Your task to perform on an android device: open app "Messenger Lite" (install if not already installed), go to login, and select forgot password Image 0: 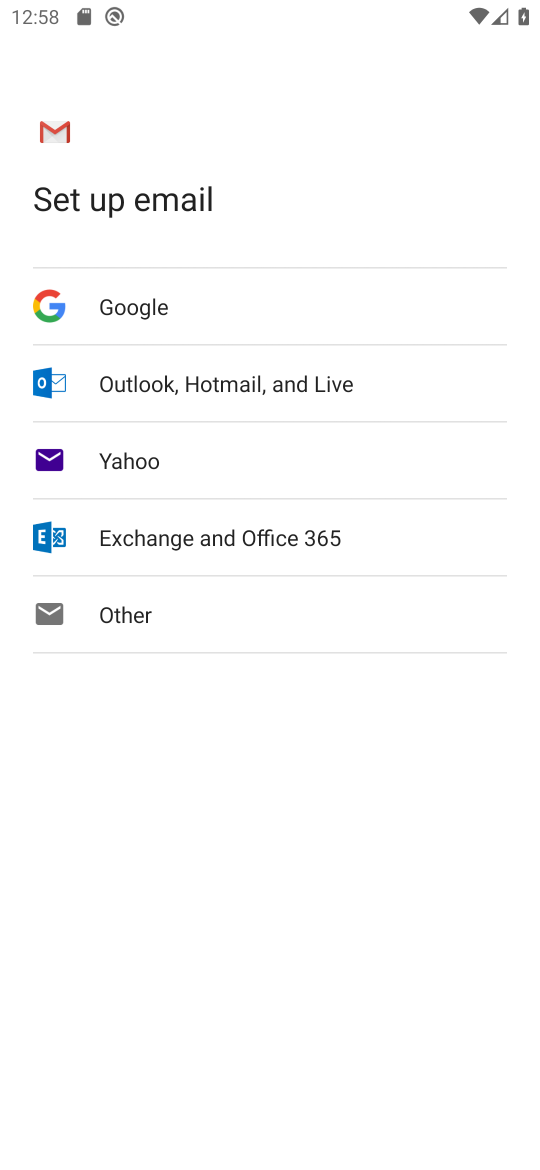
Step 0: press home button
Your task to perform on an android device: open app "Messenger Lite" (install if not already installed), go to login, and select forgot password Image 1: 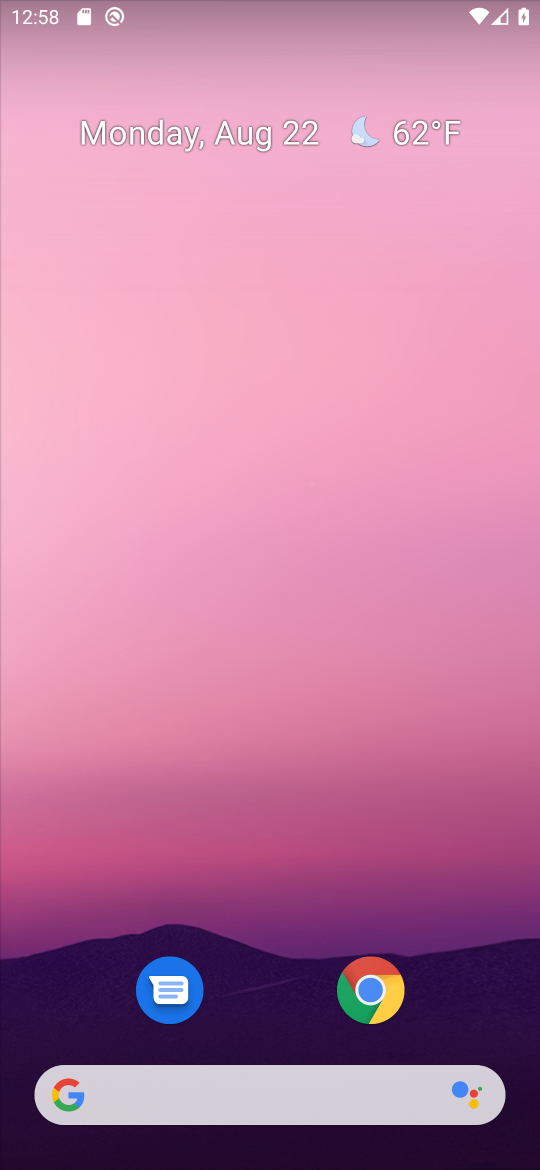
Step 1: drag from (233, 933) to (233, 299)
Your task to perform on an android device: open app "Messenger Lite" (install if not already installed), go to login, and select forgot password Image 2: 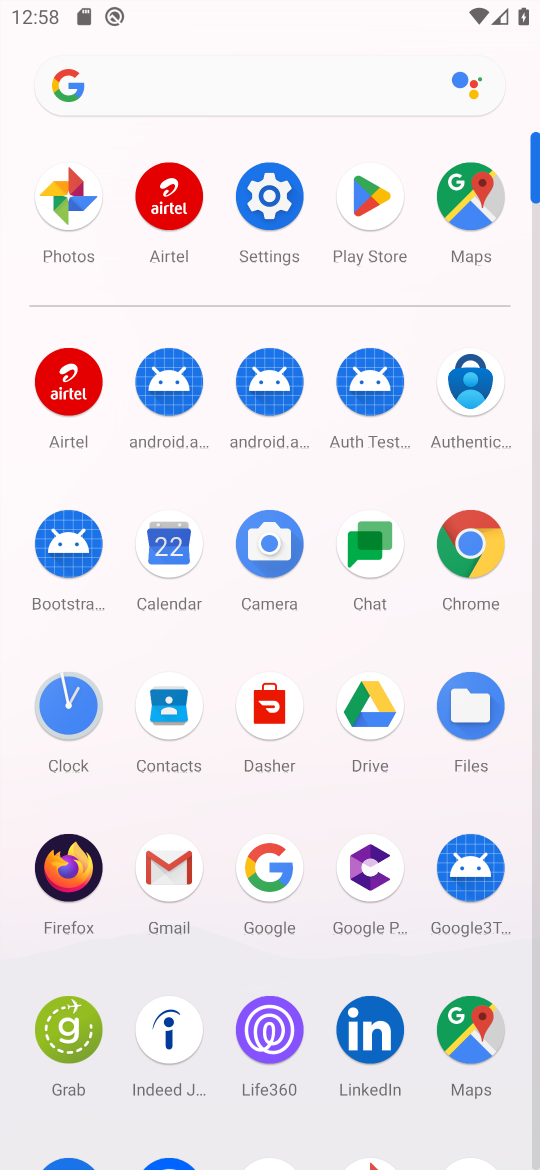
Step 2: click (350, 174)
Your task to perform on an android device: open app "Messenger Lite" (install if not already installed), go to login, and select forgot password Image 3: 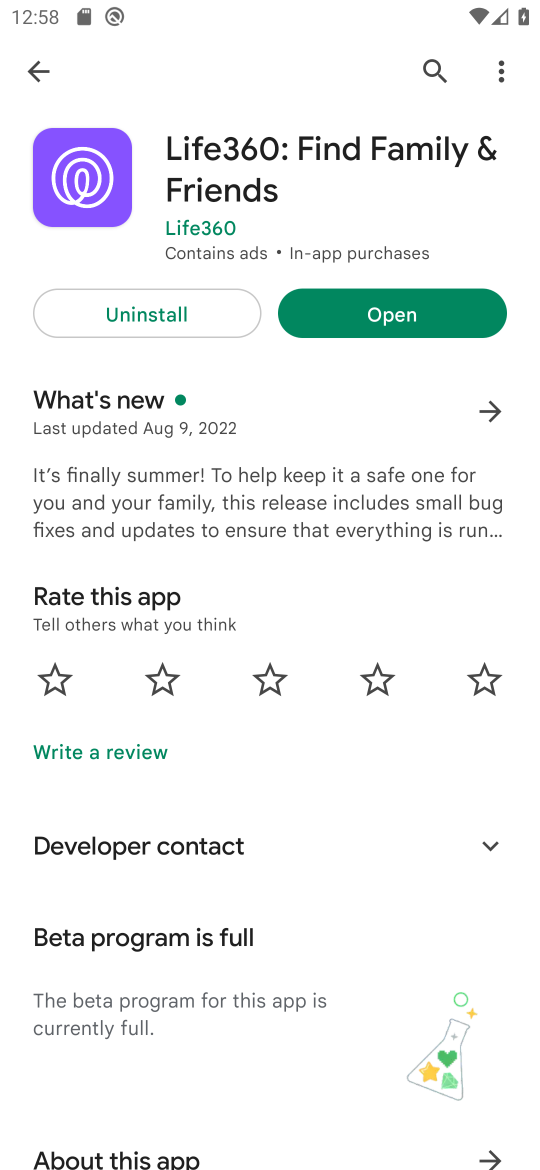
Step 3: click (433, 77)
Your task to perform on an android device: open app "Messenger Lite" (install if not already installed), go to login, and select forgot password Image 4: 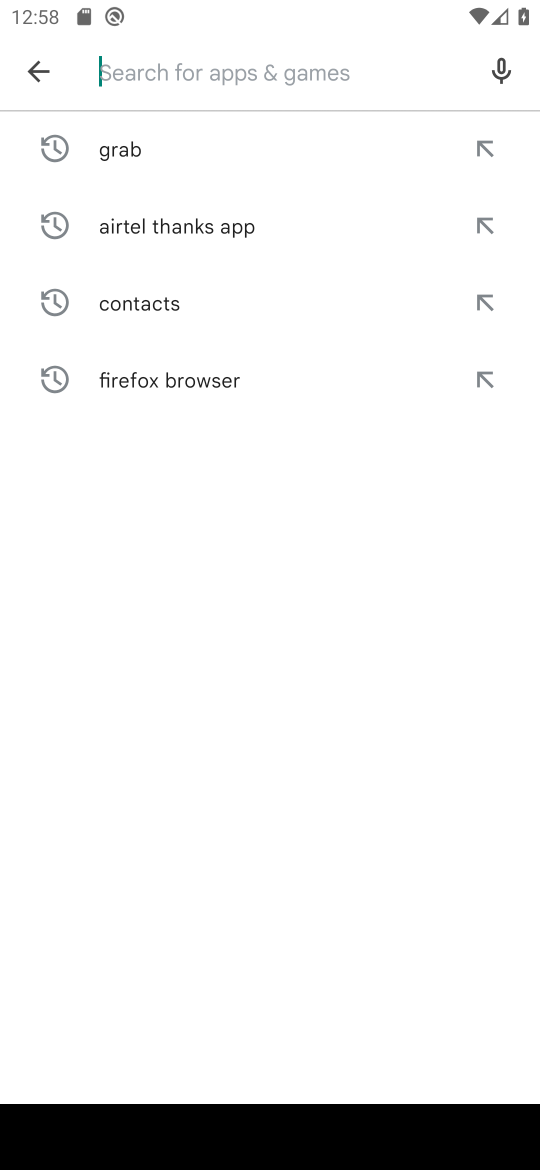
Step 4: type "Messenger Lite"
Your task to perform on an android device: open app "Messenger Lite" (install if not already installed), go to login, and select forgot password Image 5: 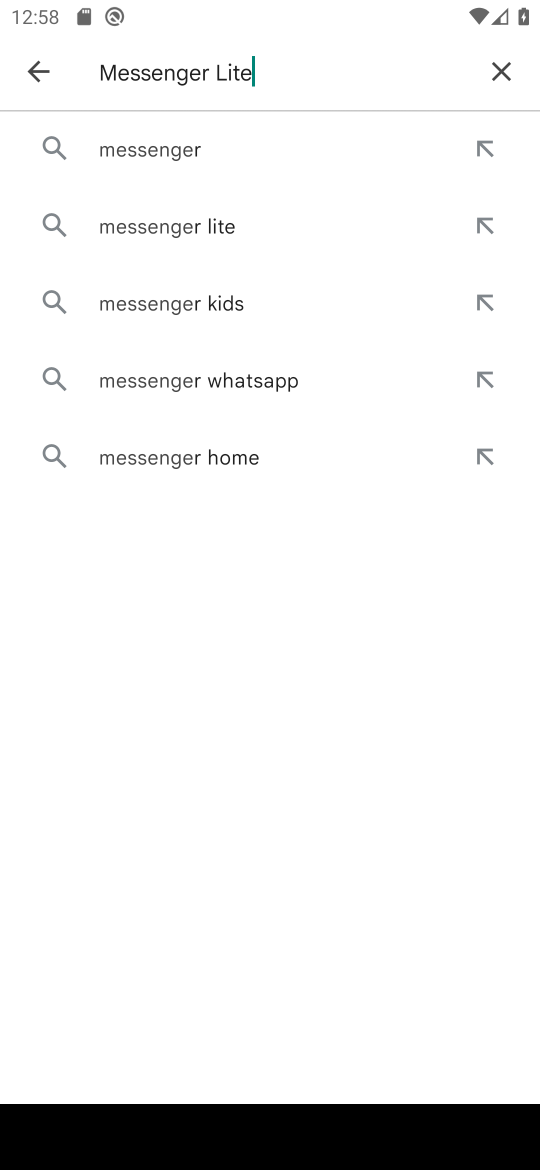
Step 5: type ""
Your task to perform on an android device: open app "Messenger Lite" (install if not already installed), go to login, and select forgot password Image 6: 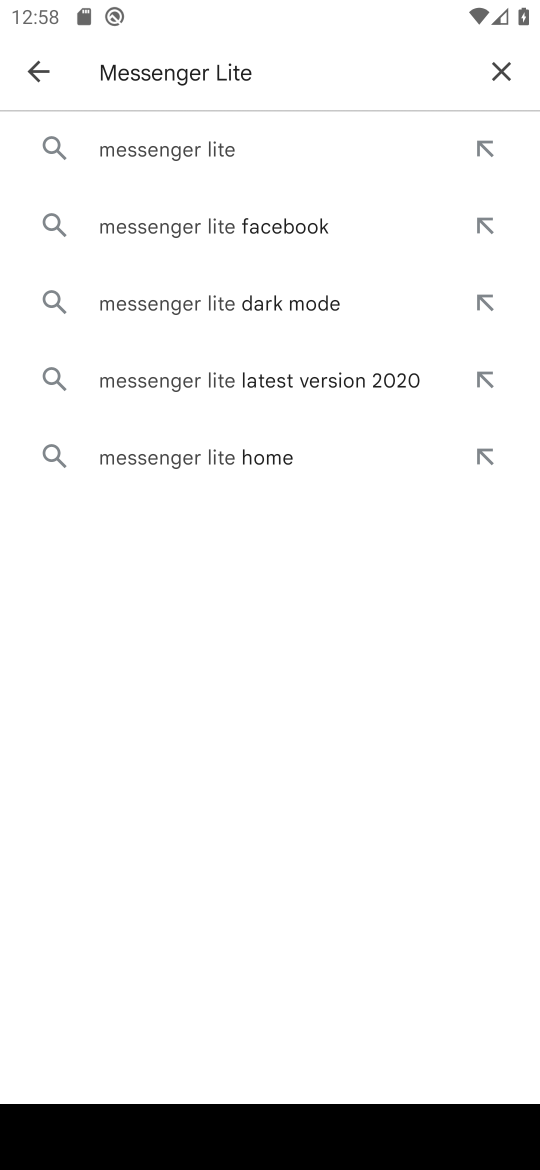
Step 6: click (226, 141)
Your task to perform on an android device: open app "Messenger Lite" (install if not already installed), go to login, and select forgot password Image 7: 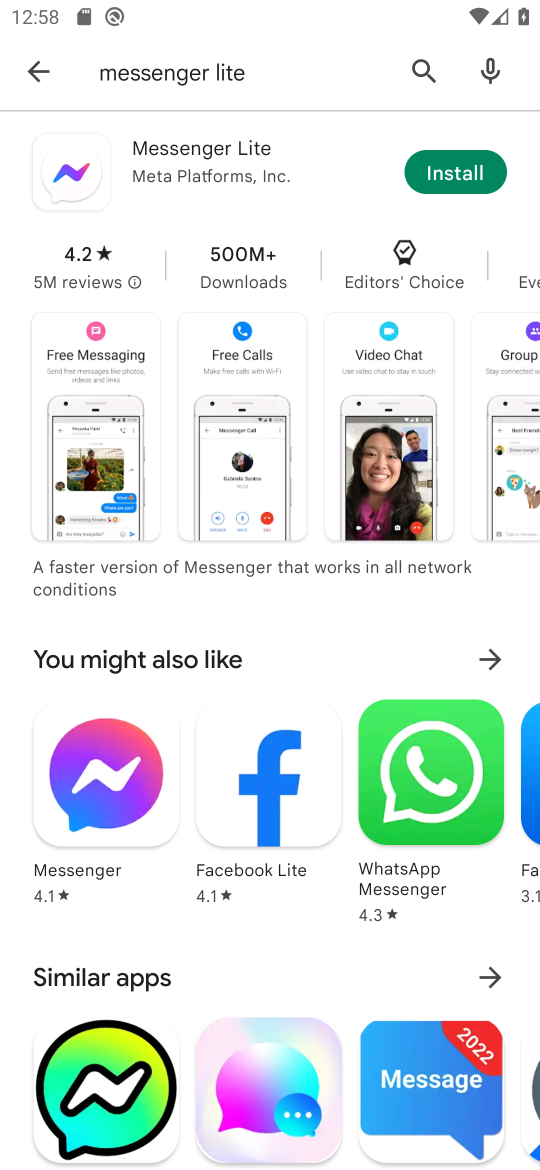
Step 7: click (445, 183)
Your task to perform on an android device: open app "Messenger Lite" (install if not already installed), go to login, and select forgot password Image 8: 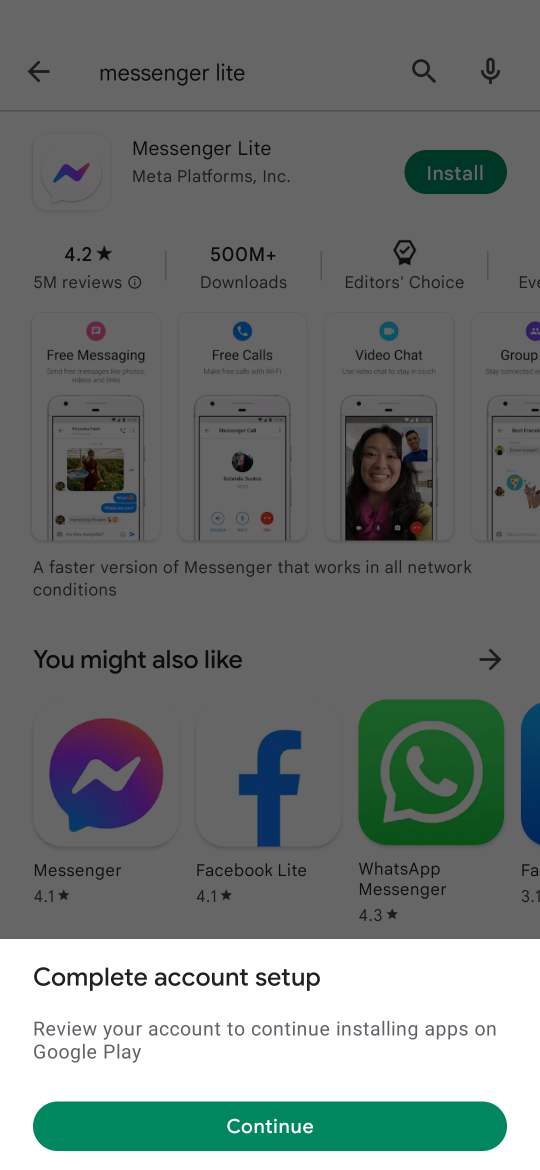
Step 8: click (334, 1129)
Your task to perform on an android device: open app "Messenger Lite" (install if not already installed), go to login, and select forgot password Image 9: 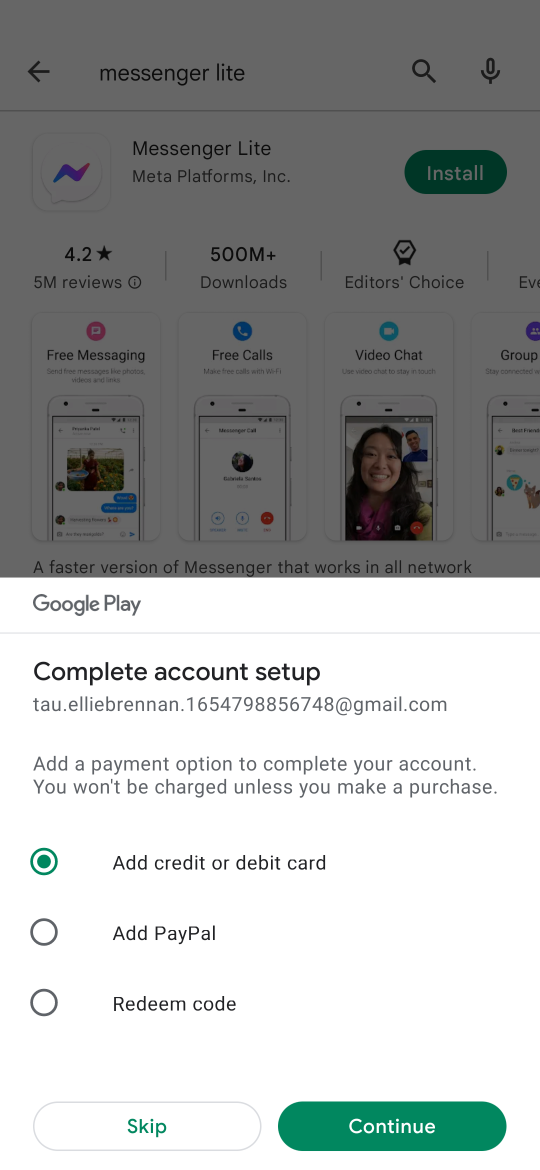
Step 9: click (172, 1123)
Your task to perform on an android device: open app "Messenger Lite" (install if not already installed), go to login, and select forgot password Image 10: 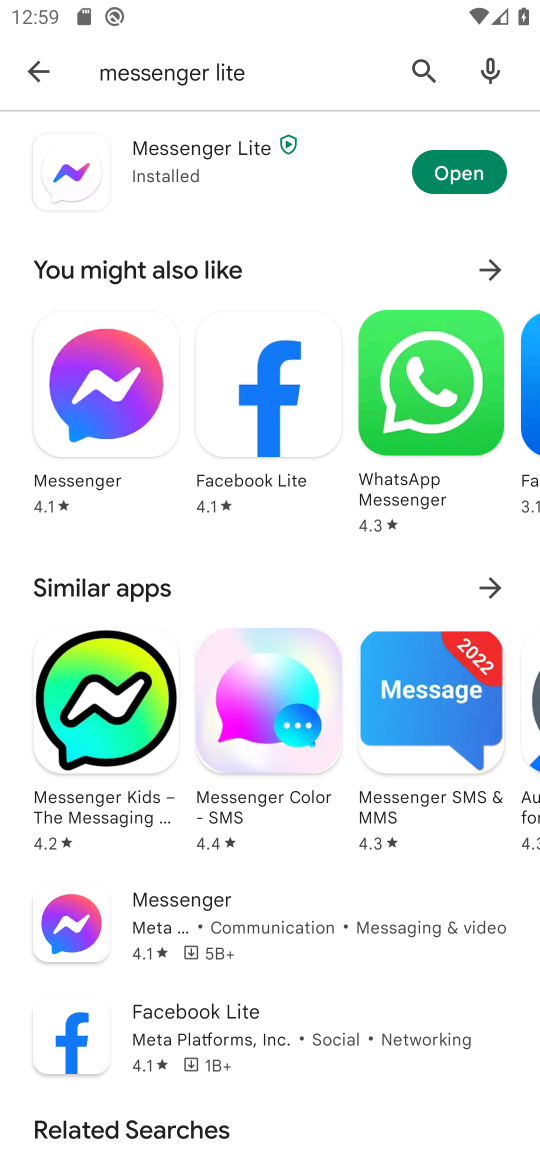
Step 10: click (466, 179)
Your task to perform on an android device: open app "Messenger Lite" (install if not already installed), go to login, and select forgot password Image 11: 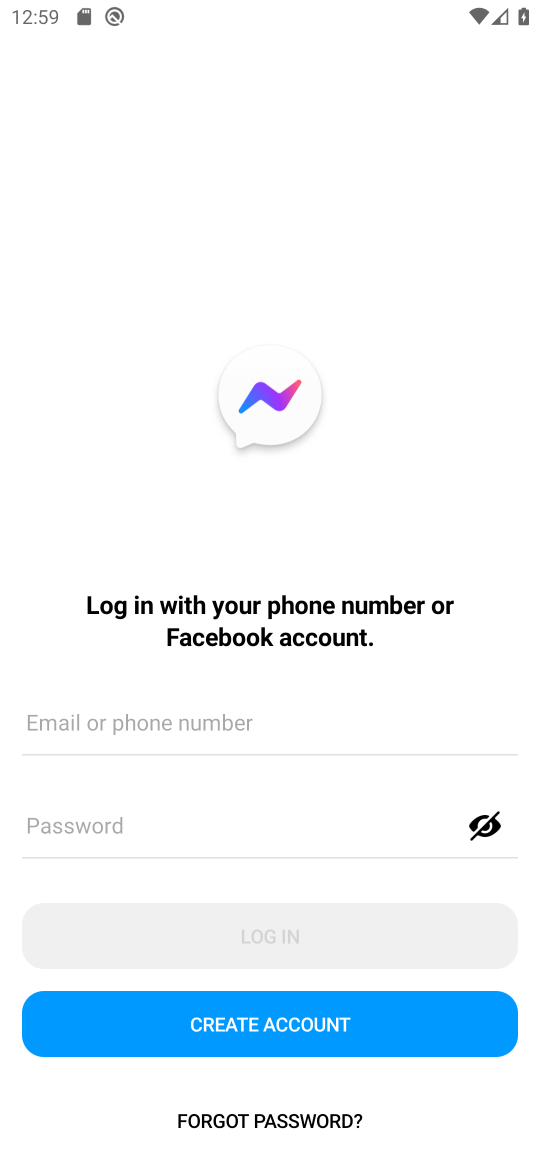
Step 11: task complete